Your task to perform on an android device: delete browsing data in the chrome app Image 0: 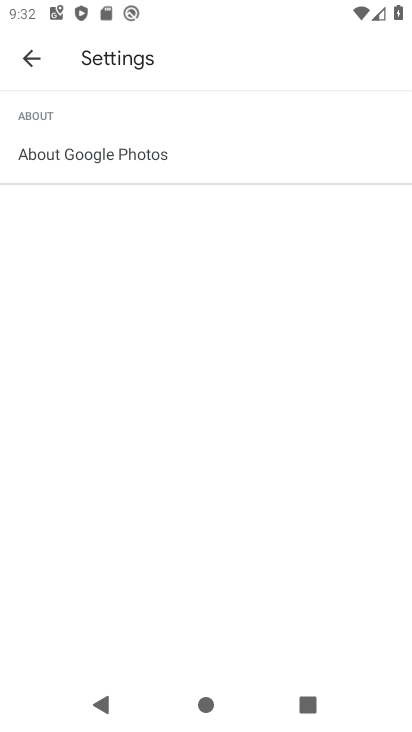
Step 0: press home button
Your task to perform on an android device: delete browsing data in the chrome app Image 1: 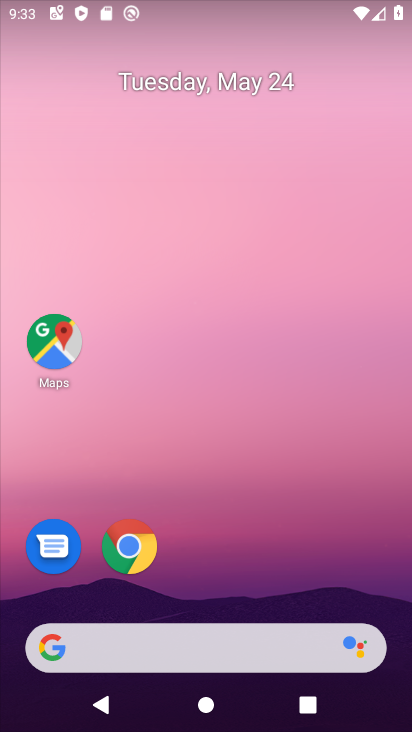
Step 1: click (130, 545)
Your task to perform on an android device: delete browsing data in the chrome app Image 2: 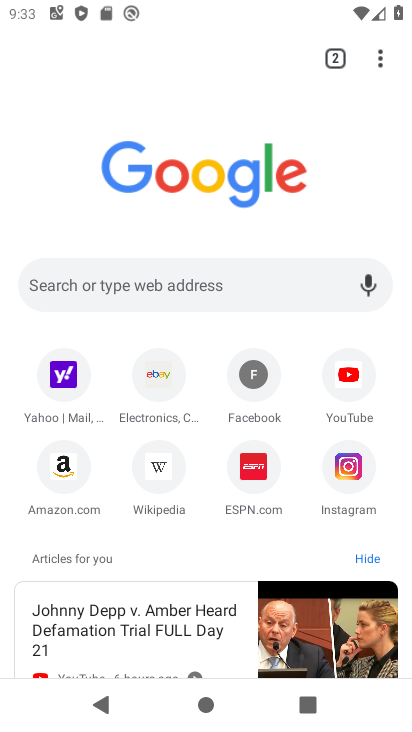
Step 2: click (381, 62)
Your task to perform on an android device: delete browsing data in the chrome app Image 3: 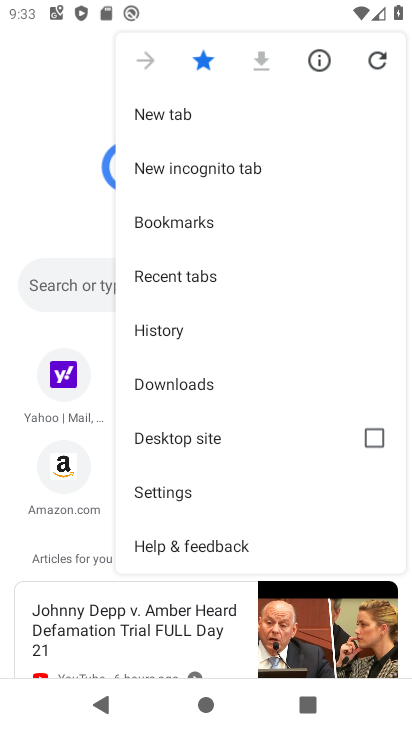
Step 3: click (157, 487)
Your task to perform on an android device: delete browsing data in the chrome app Image 4: 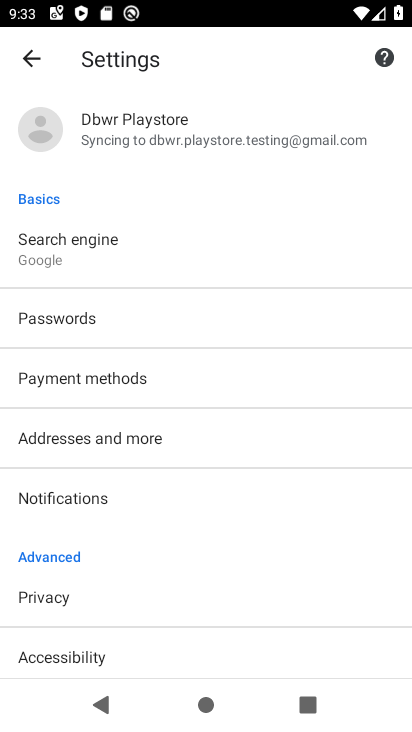
Step 4: drag from (55, 644) to (101, 265)
Your task to perform on an android device: delete browsing data in the chrome app Image 5: 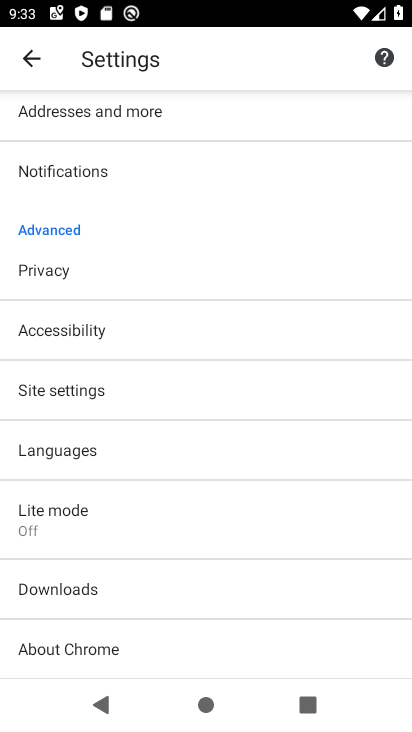
Step 5: click (53, 393)
Your task to perform on an android device: delete browsing data in the chrome app Image 6: 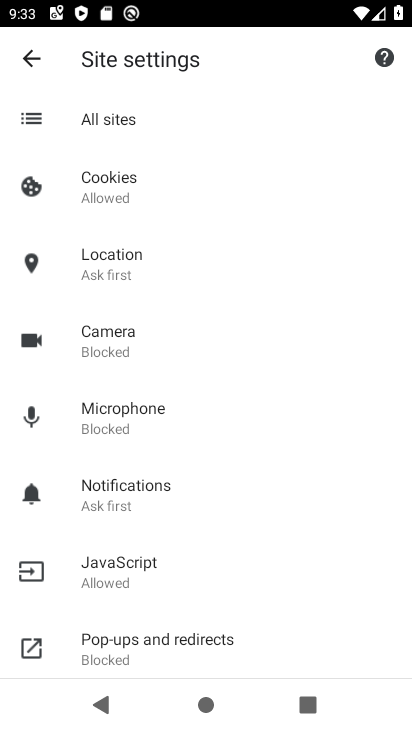
Step 6: drag from (97, 630) to (100, 215)
Your task to perform on an android device: delete browsing data in the chrome app Image 7: 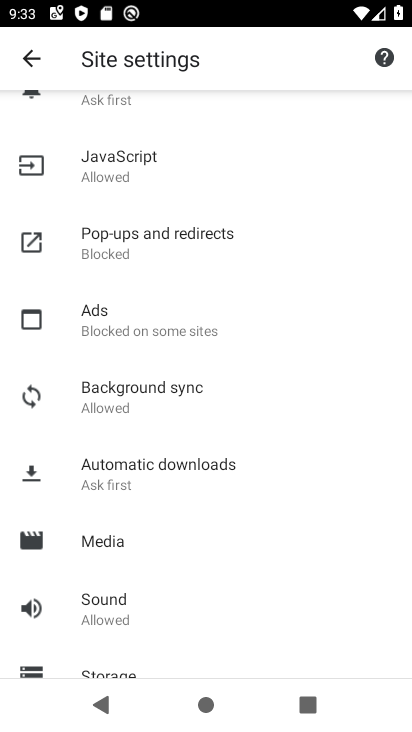
Step 7: drag from (154, 248) to (201, 582)
Your task to perform on an android device: delete browsing data in the chrome app Image 8: 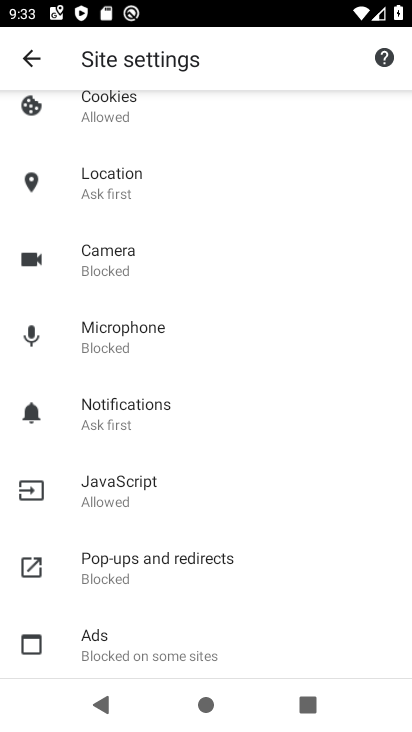
Step 8: drag from (136, 170) to (172, 529)
Your task to perform on an android device: delete browsing data in the chrome app Image 9: 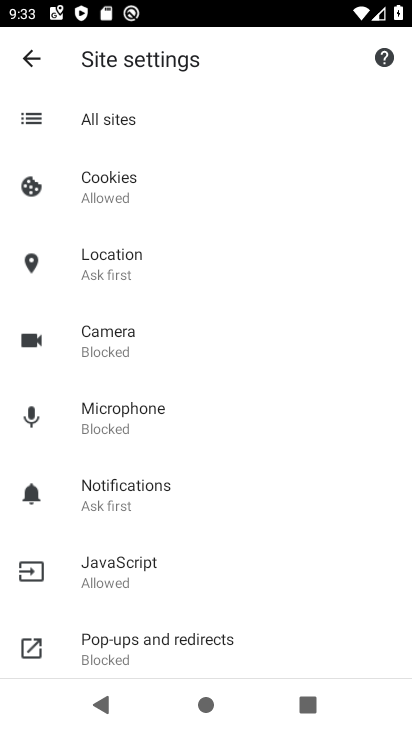
Step 9: click (26, 53)
Your task to perform on an android device: delete browsing data in the chrome app Image 10: 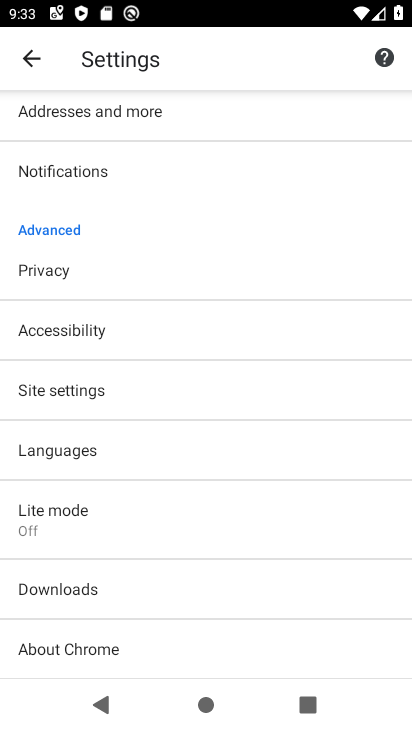
Step 10: click (36, 264)
Your task to perform on an android device: delete browsing data in the chrome app Image 11: 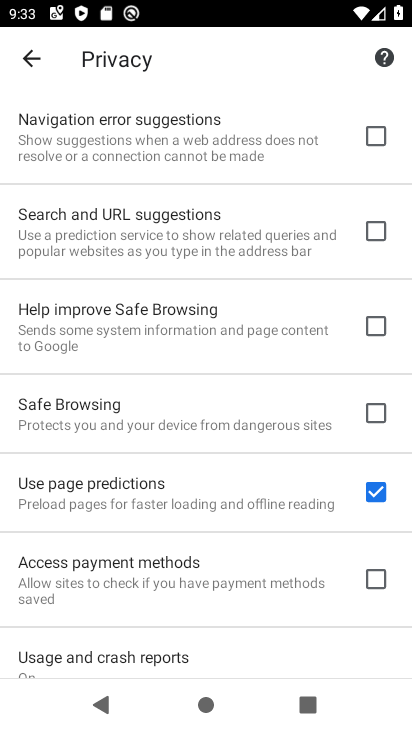
Step 11: drag from (65, 641) to (84, 445)
Your task to perform on an android device: delete browsing data in the chrome app Image 12: 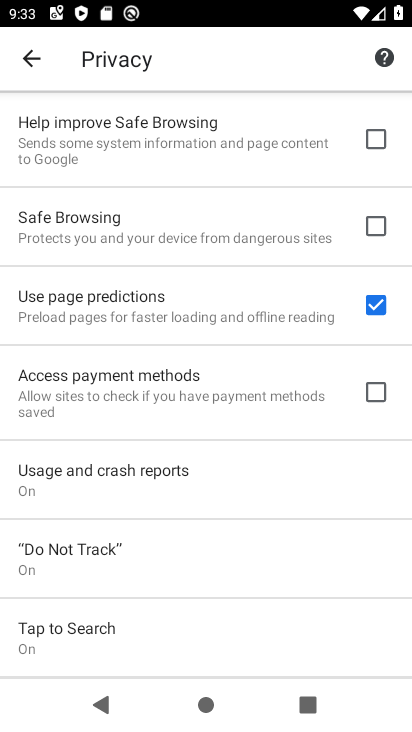
Step 12: drag from (92, 663) to (120, 383)
Your task to perform on an android device: delete browsing data in the chrome app Image 13: 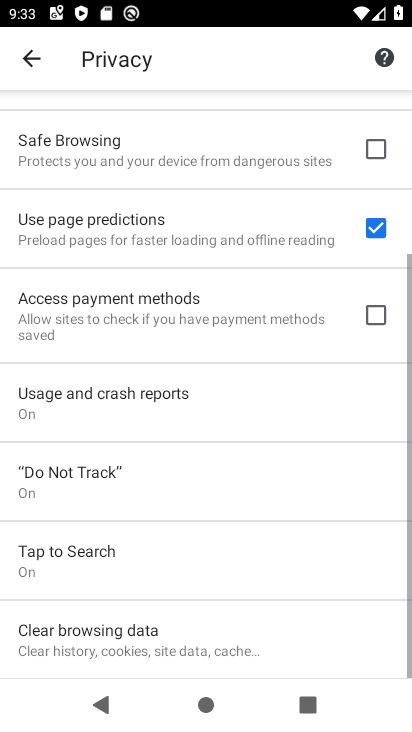
Step 13: click (80, 640)
Your task to perform on an android device: delete browsing data in the chrome app Image 14: 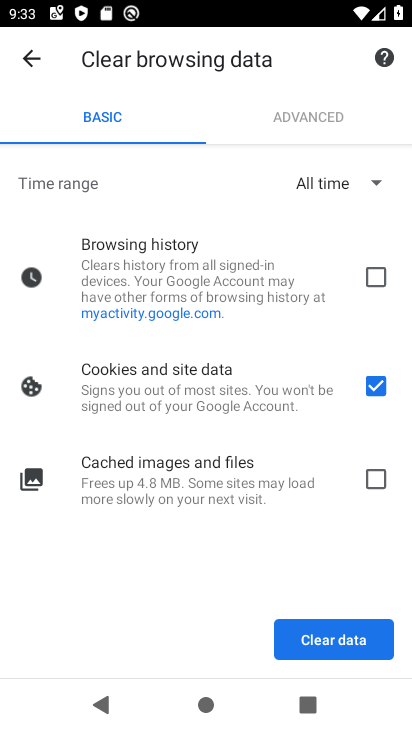
Step 14: click (314, 641)
Your task to perform on an android device: delete browsing data in the chrome app Image 15: 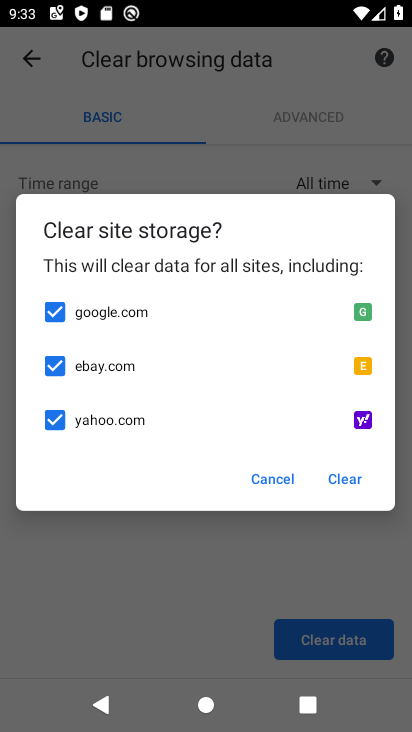
Step 15: click (273, 488)
Your task to perform on an android device: delete browsing data in the chrome app Image 16: 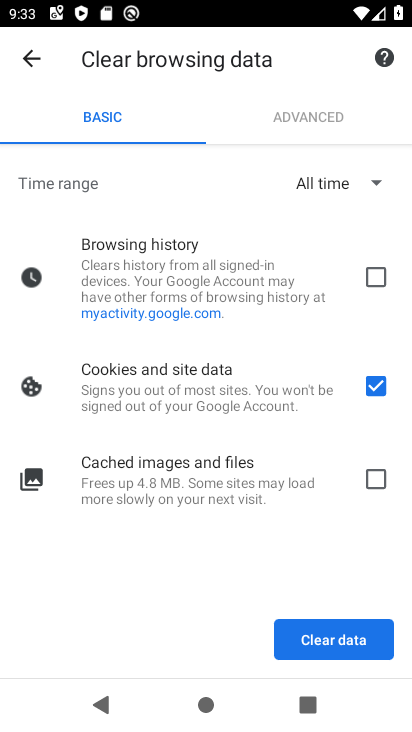
Step 16: click (372, 478)
Your task to perform on an android device: delete browsing data in the chrome app Image 17: 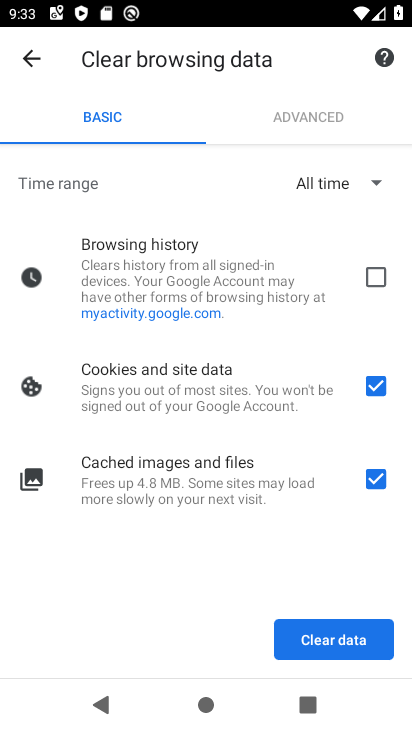
Step 17: click (376, 267)
Your task to perform on an android device: delete browsing data in the chrome app Image 18: 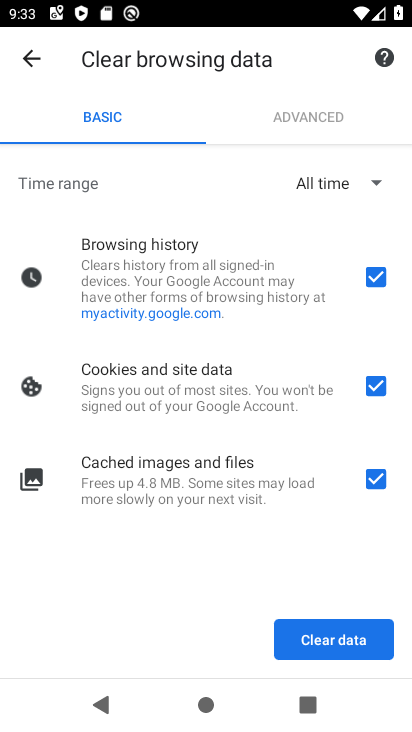
Step 18: click (321, 644)
Your task to perform on an android device: delete browsing data in the chrome app Image 19: 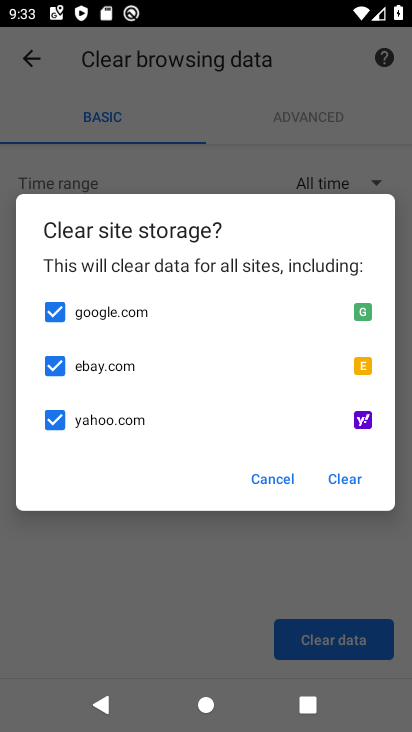
Step 19: click (339, 463)
Your task to perform on an android device: delete browsing data in the chrome app Image 20: 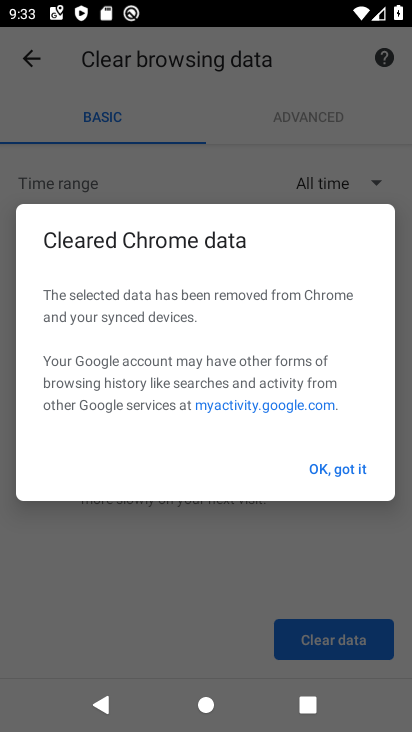
Step 20: click (344, 473)
Your task to perform on an android device: delete browsing data in the chrome app Image 21: 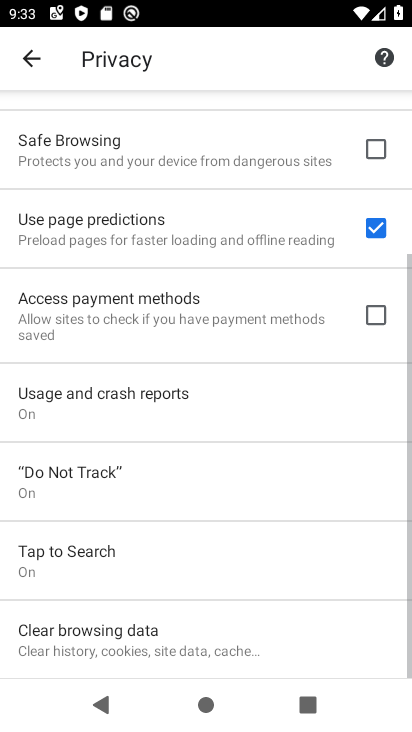
Step 21: task complete